Your task to perform on an android device: open a bookmark in the chrome app Image 0: 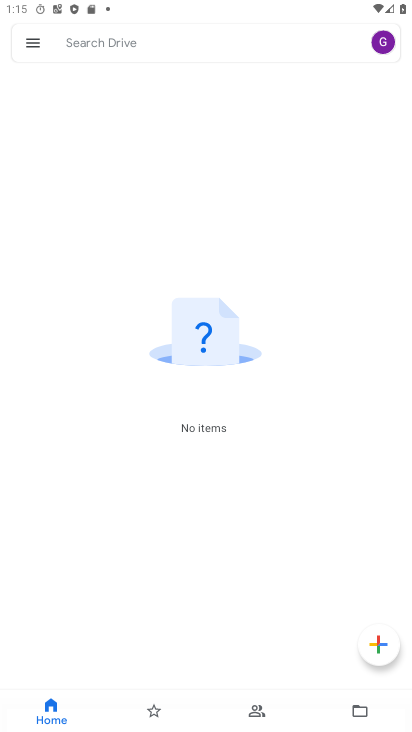
Step 0: drag from (221, 610) to (276, 204)
Your task to perform on an android device: open a bookmark in the chrome app Image 1: 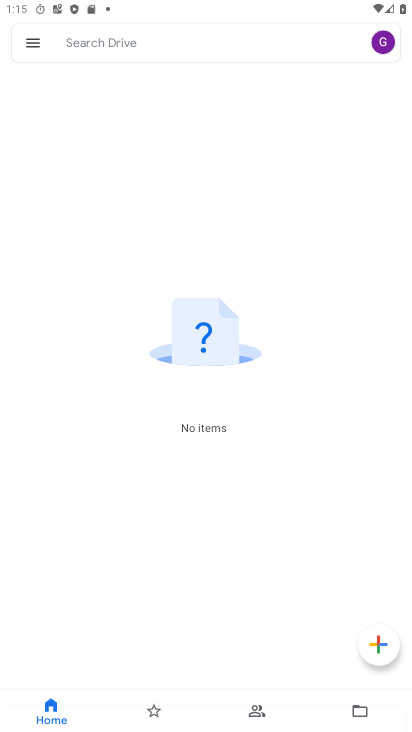
Step 1: press home button
Your task to perform on an android device: open a bookmark in the chrome app Image 2: 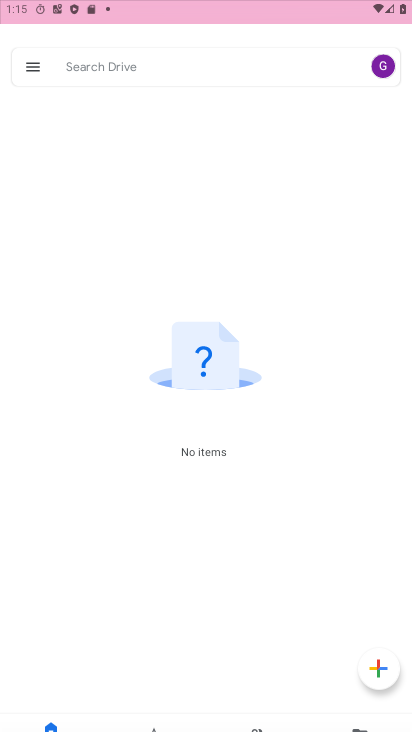
Step 2: drag from (187, 472) to (242, 80)
Your task to perform on an android device: open a bookmark in the chrome app Image 3: 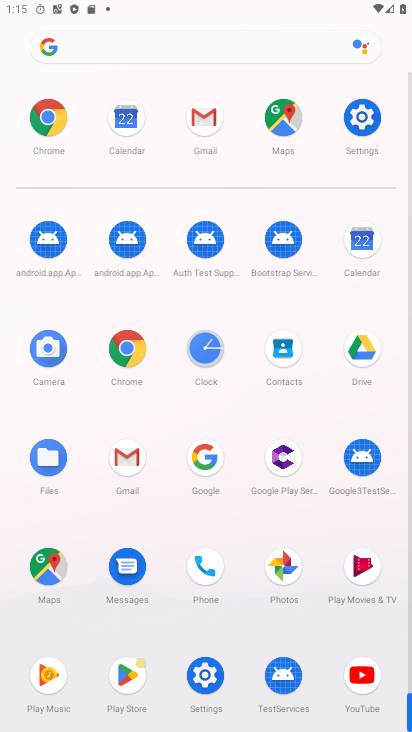
Step 3: click (126, 343)
Your task to perform on an android device: open a bookmark in the chrome app Image 4: 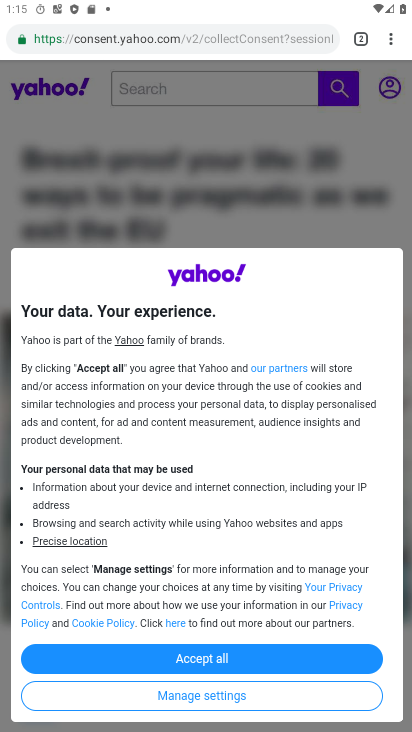
Step 4: task complete